Your task to perform on an android device: Open ESPN.com Image 0: 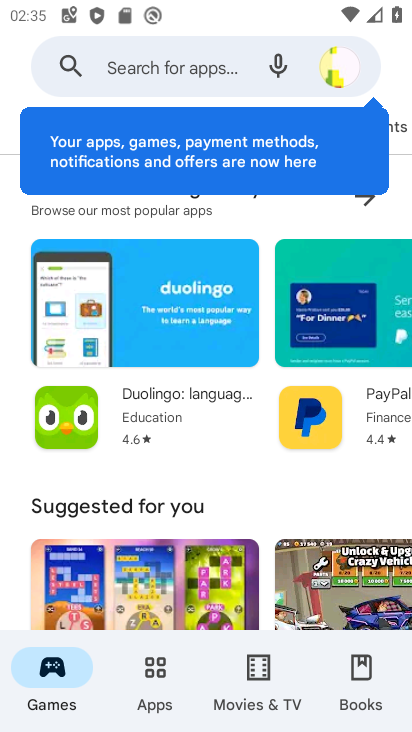
Step 0: press home button
Your task to perform on an android device: Open ESPN.com Image 1: 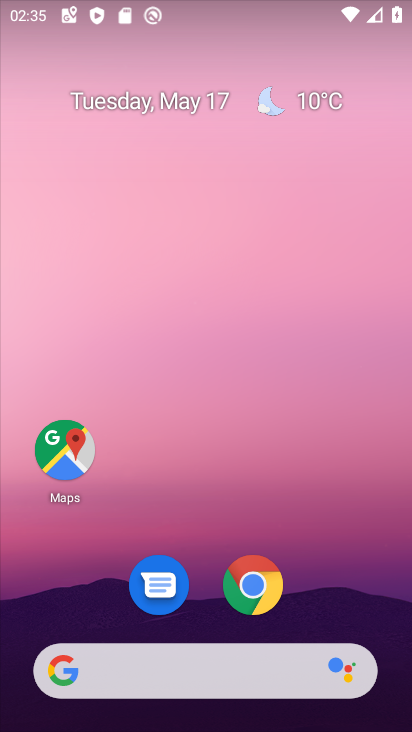
Step 1: click (251, 674)
Your task to perform on an android device: Open ESPN.com Image 2: 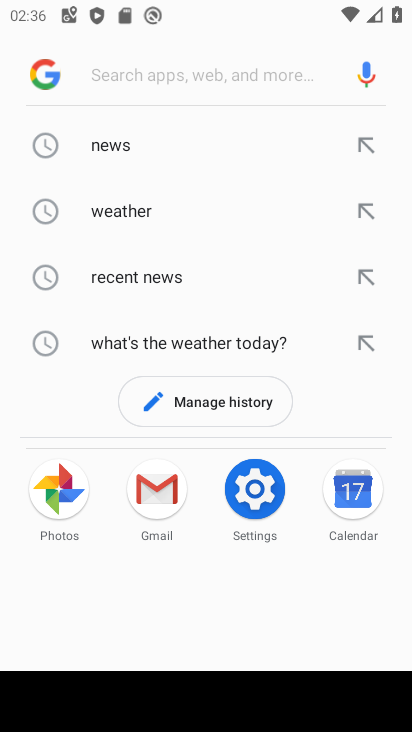
Step 2: type "espn.com"
Your task to perform on an android device: Open ESPN.com Image 3: 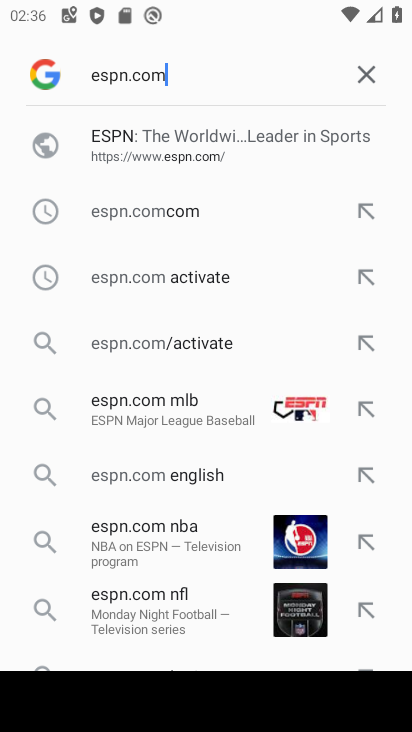
Step 3: click (98, 136)
Your task to perform on an android device: Open ESPN.com Image 4: 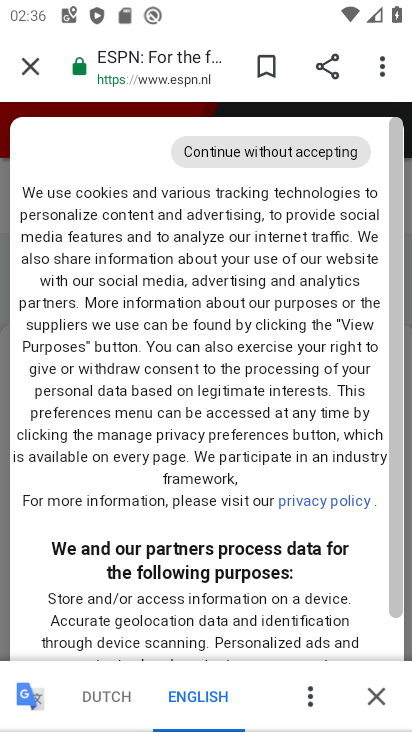
Step 4: task complete